Your task to perform on an android device: change the clock display to analog Image 0: 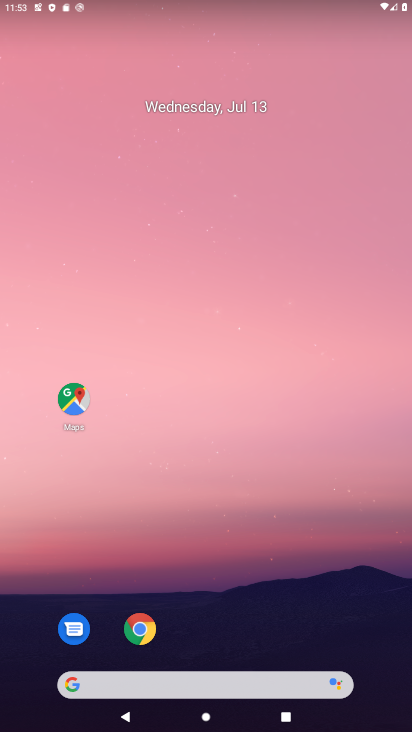
Step 0: drag from (285, 615) to (215, 78)
Your task to perform on an android device: change the clock display to analog Image 1: 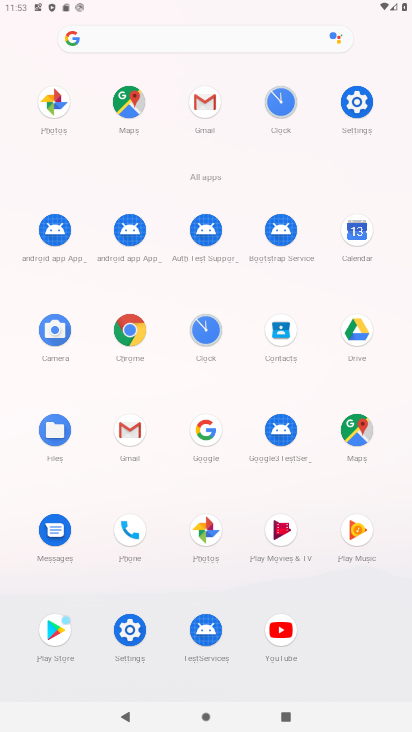
Step 1: click (273, 109)
Your task to perform on an android device: change the clock display to analog Image 2: 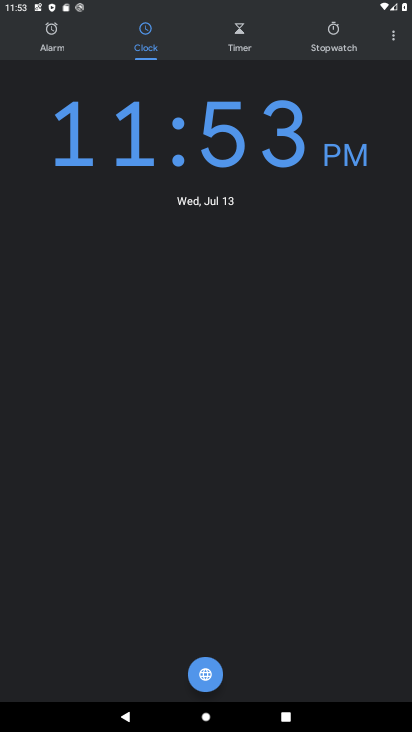
Step 2: click (393, 41)
Your task to perform on an android device: change the clock display to analog Image 3: 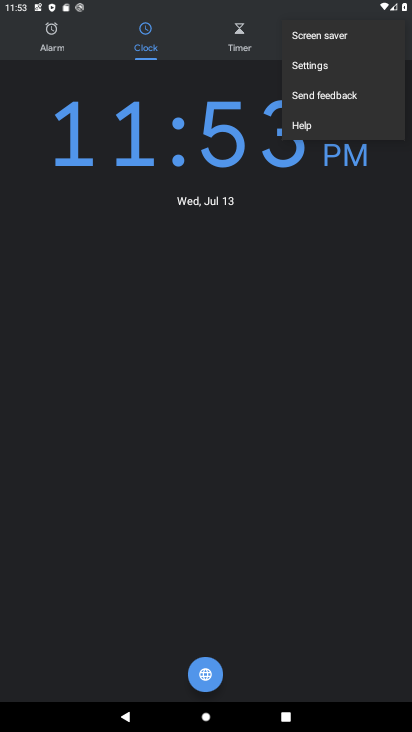
Step 3: click (333, 67)
Your task to perform on an android device: change the clock display to analog Image 4: 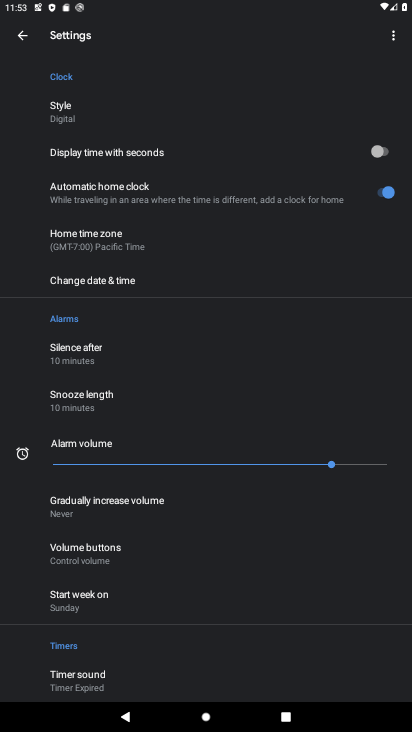
Step 4: click (119, 117)
Your task to perform on an android device: change the clock display to analog Image 5: 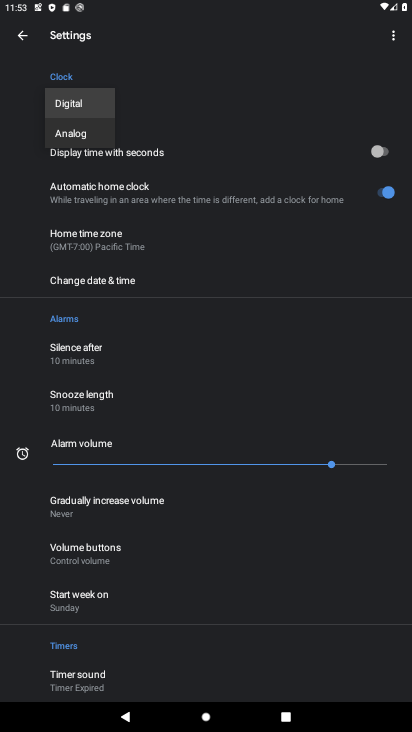
Step 5: click (99, 138)
Your task to perform on an android device: change the clock display to analog Image 6: 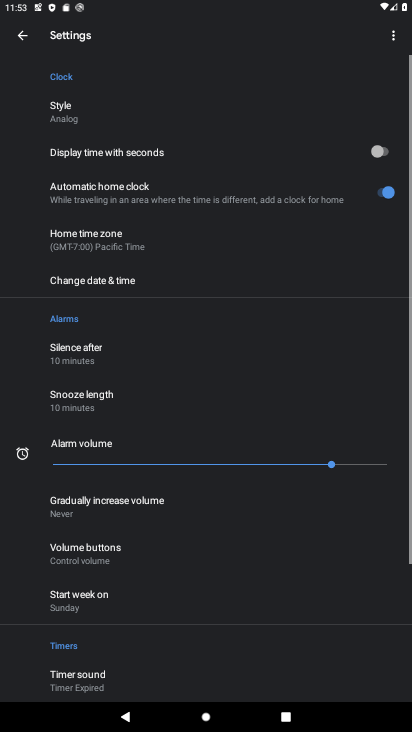
Step 6: task complete